Your task to perform on an android device: Open Yahoo.com Image 0: 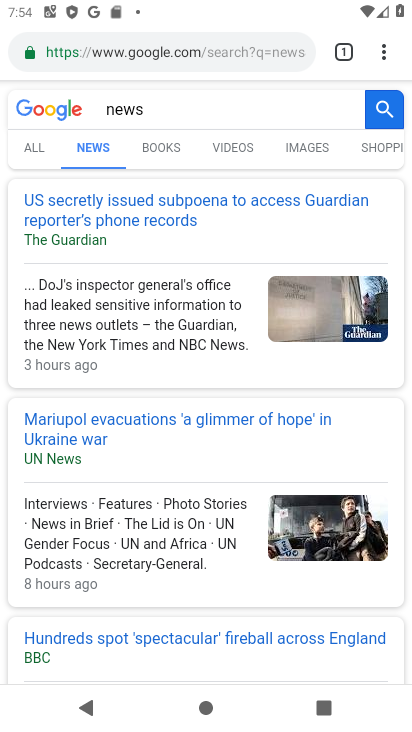
Step 0: click (248, 49)
Your task to perform on an android device: Open Yahoo.com Image 1: 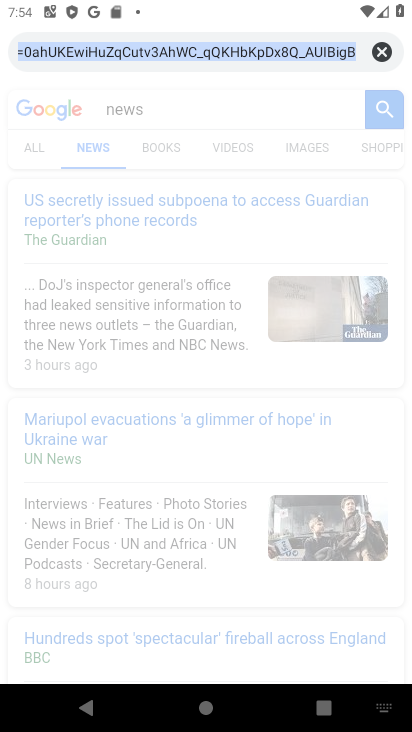
Step 1: type "yahoo.com"
Your task to perform on an android device: Open Yahoo.com Image 2: 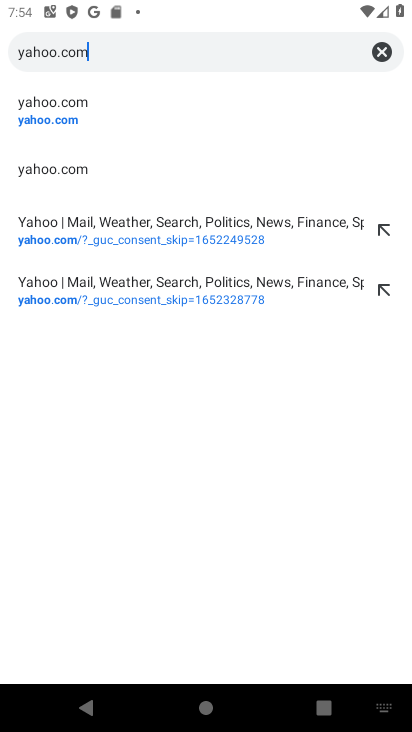
Step 2: type ""
Your task to perform on an android device: Open Yahoo.com Image 3: 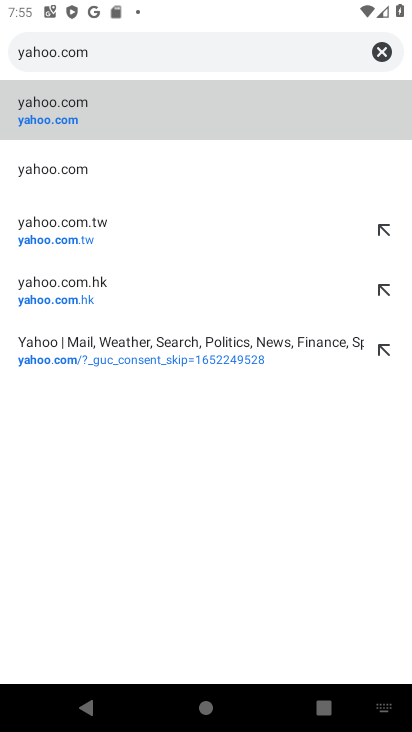
Step 3: click (136, 121)
Your task to perform on an android device: Open Yahoo.com Image 4: 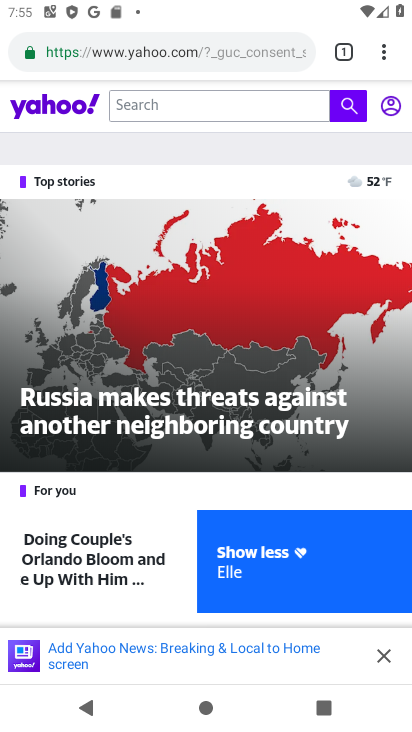
Step 4: task complete